Your task to perform on an android device: set the timer Image 0: 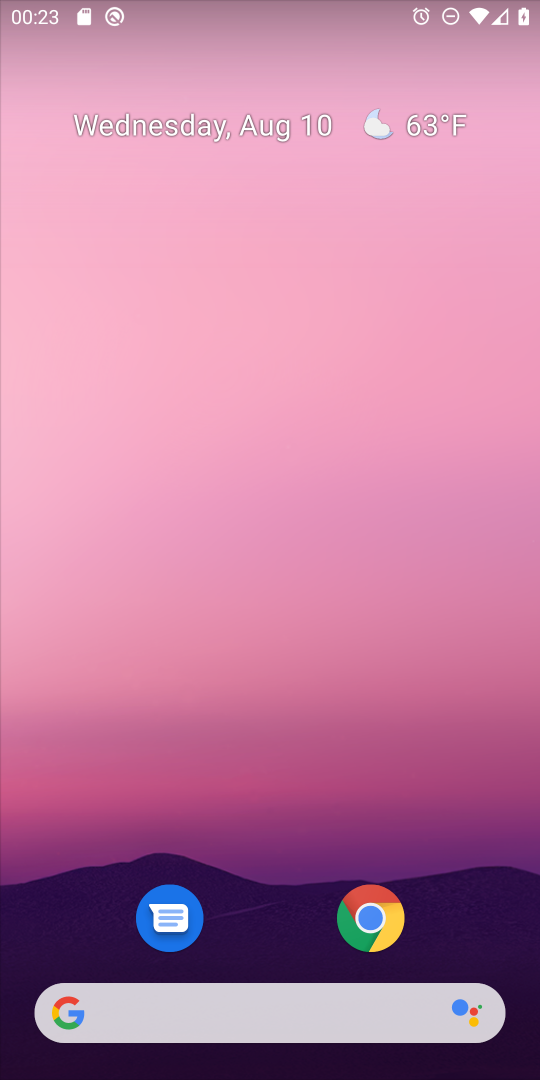
Step 0: drag from (294, 786) to (275, 169)
Your task to perform on an android device: set the timer Image 1: 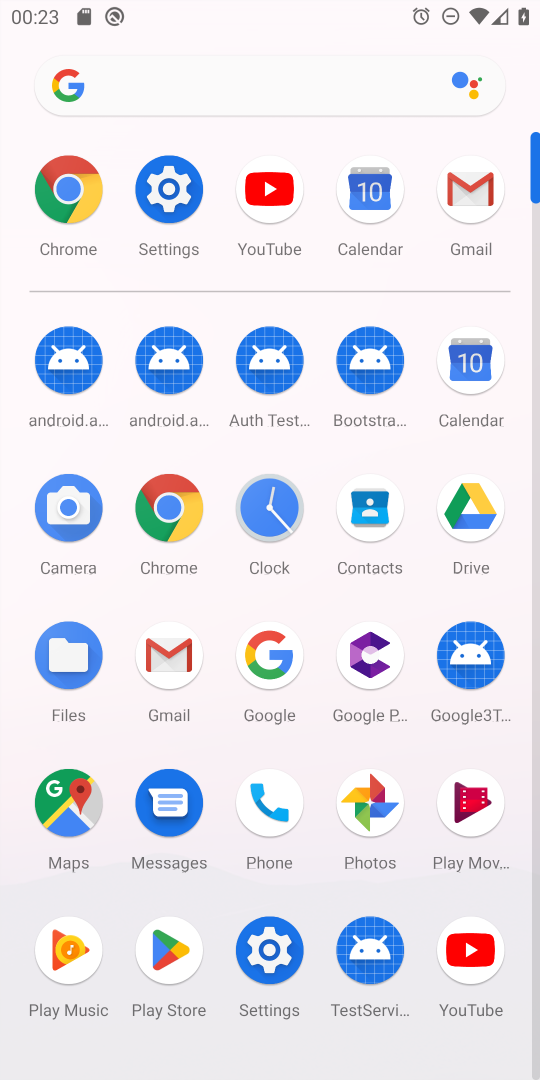
Step 1: click (261, 506)
Your task to perform on an android device: set the timer Image 2: 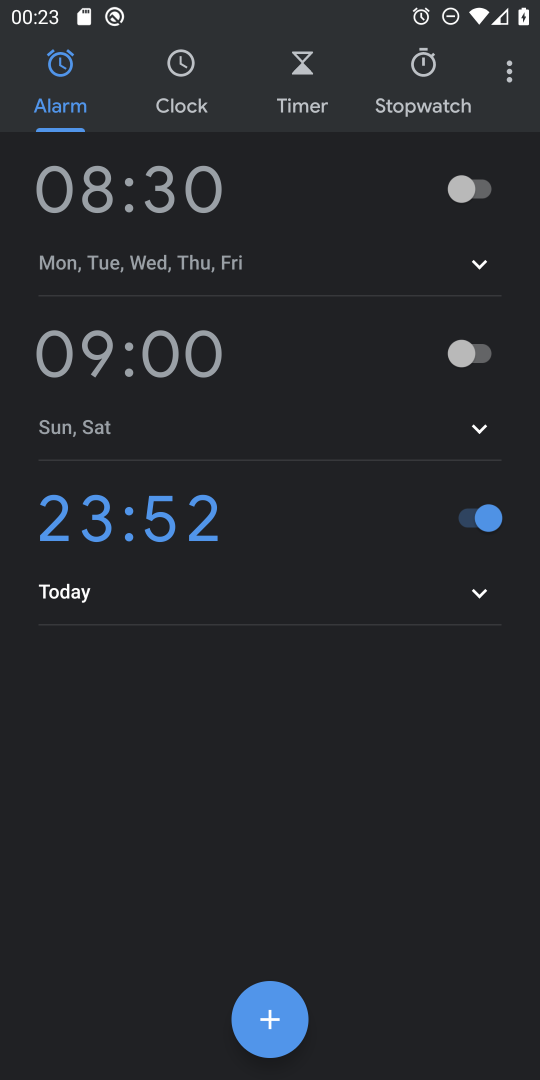
Step 2: click (311, 62)
Your task to perform on an android device: set the timer Image 3: 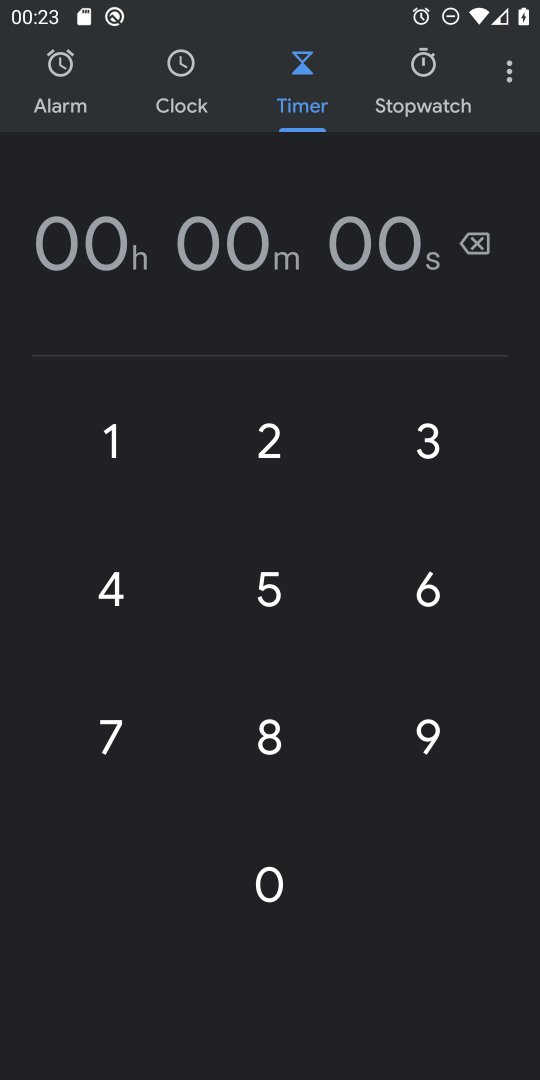
Step 3: click (260, 596)
Your task to perform on an android device: set the timer Image 4: 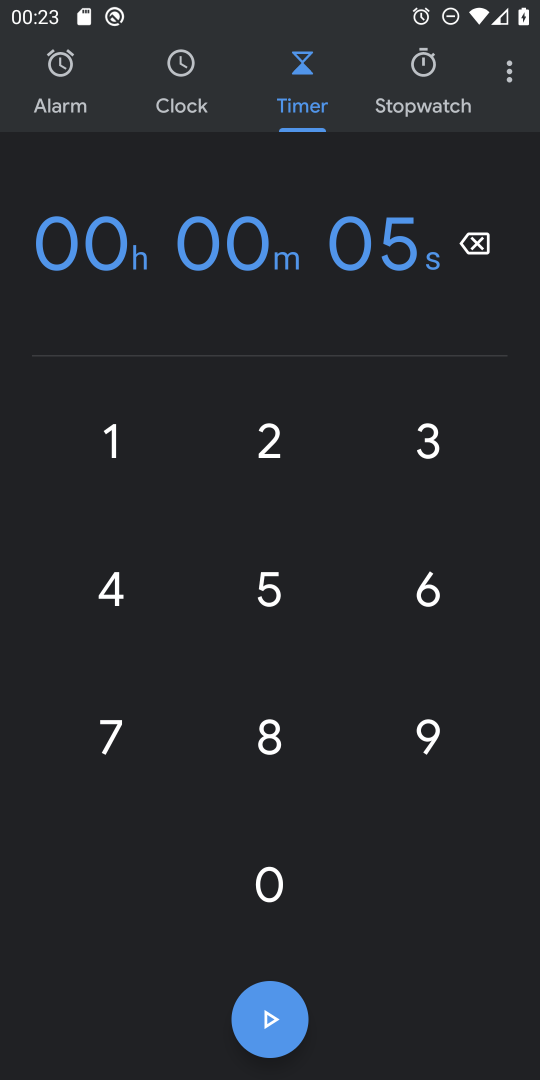
Step 4: task complete